Your task to perform on an android device: Open notification settings Image 0: 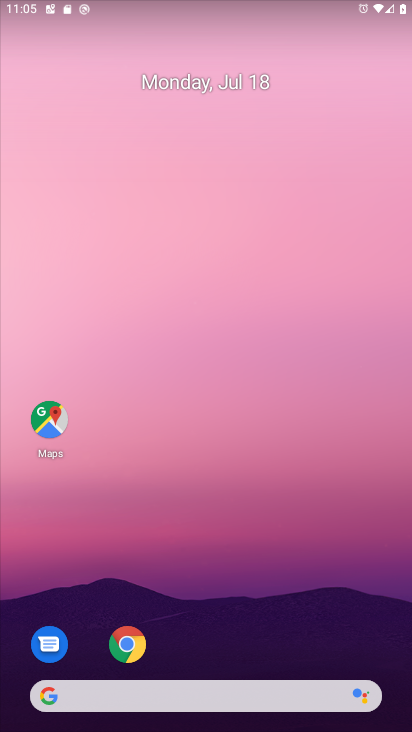
Step 0: drag from (250, 655) to (132, 47)
Your task to perform on an android device: Open notification settings Image 1: 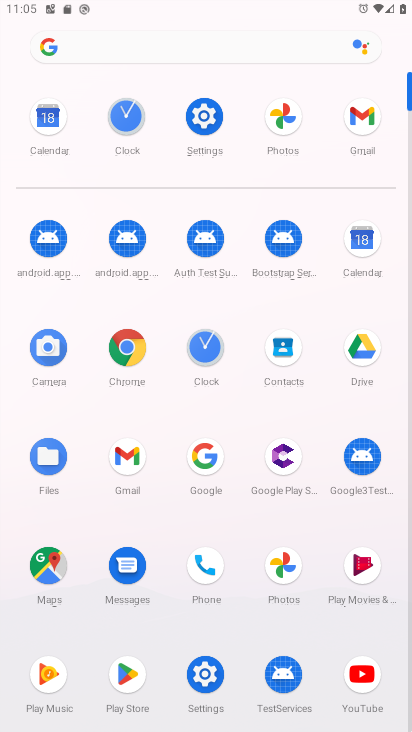
Step 1: click (195, 132)
Your task to perform on an android device: Open notification settings Image 2: 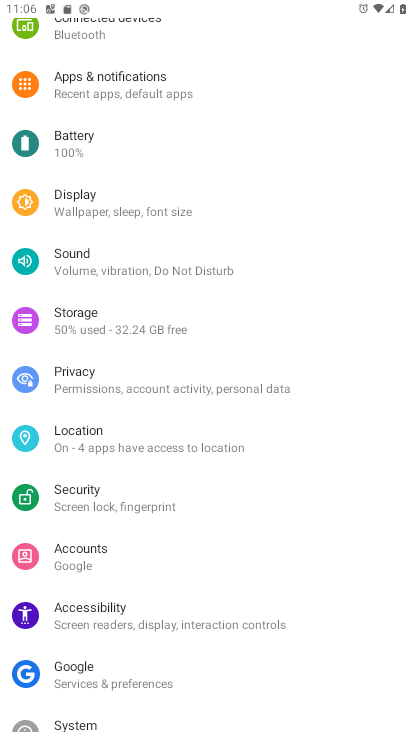
Step 2: click (114, 90)
Your task to perform on an android device: Open notification settings Image 3: 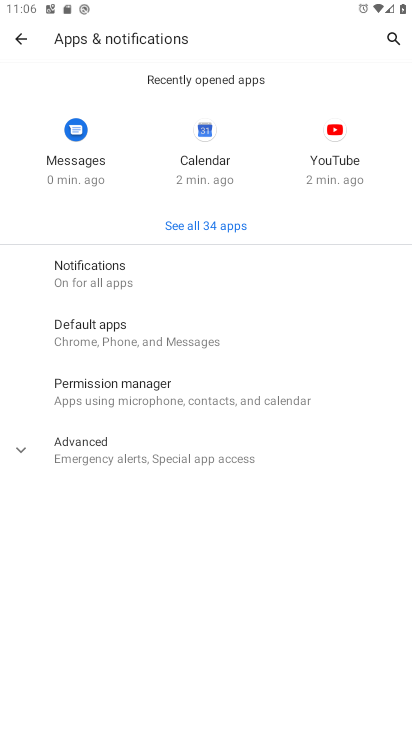
Step 3: task complete